Your task to perform on an android device: check battery use Image 0: 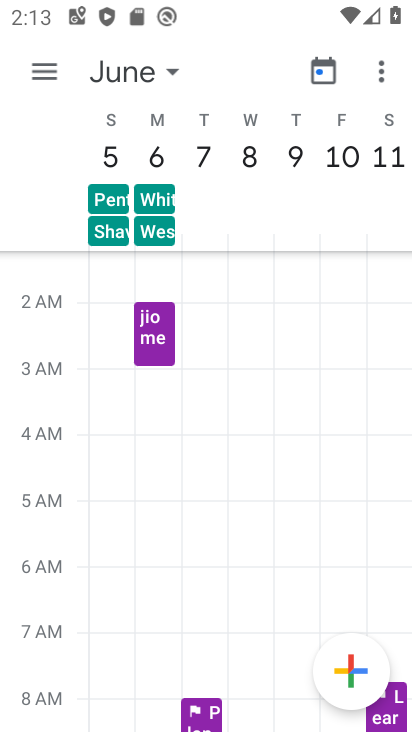
Step 0: press home button
Your task to perform on an android device: check battery use Image 1: 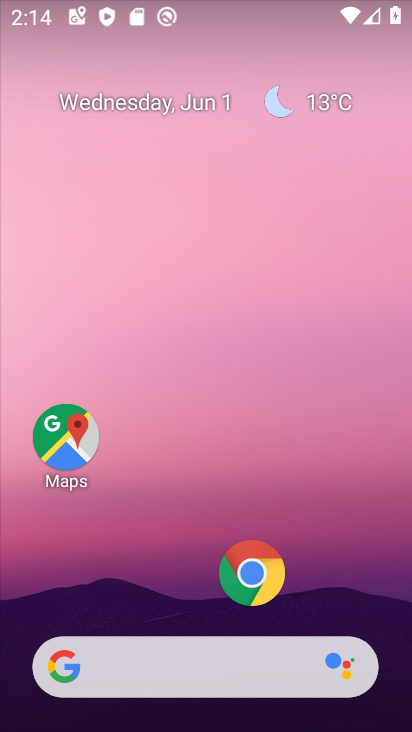
Step 1: drag from (182, 629) to (160, 27)
Your task to perform on an android device: check battery use Image 2: 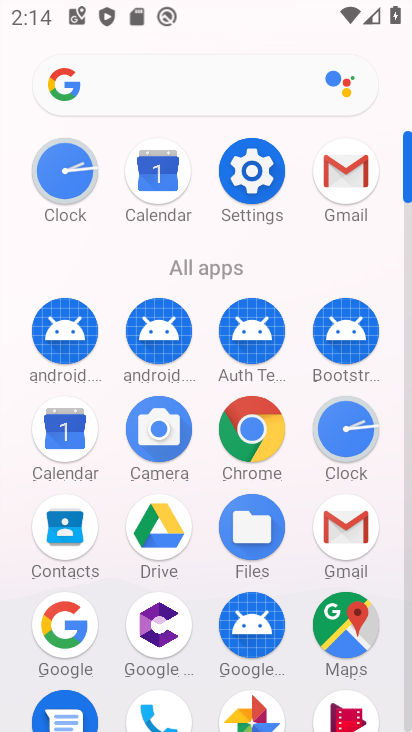
Step 2: click (261, 168)
Your task to perform on an android device: check battery use Image 3: 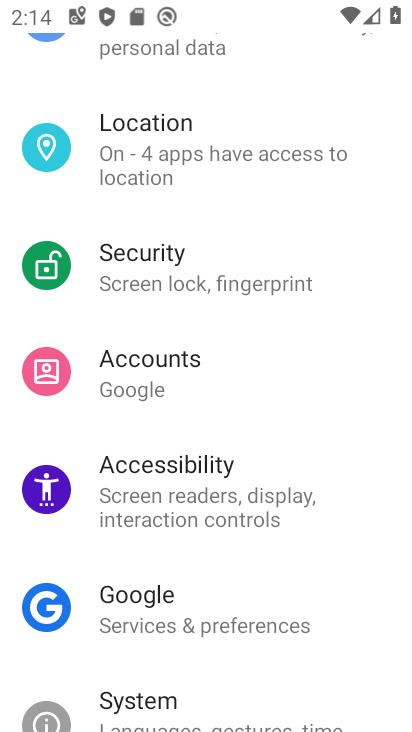
Step 3: drag from (195, 197) to (145, 565)
Your task to perform on an android device: check battery use Image 4: 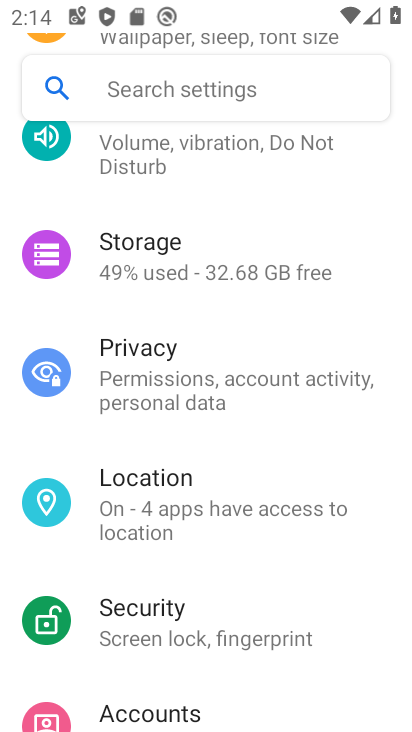
Step 4: drag from (167, 152) to (151, 537)
Your task to perform on an android device: check battery use Image 5: 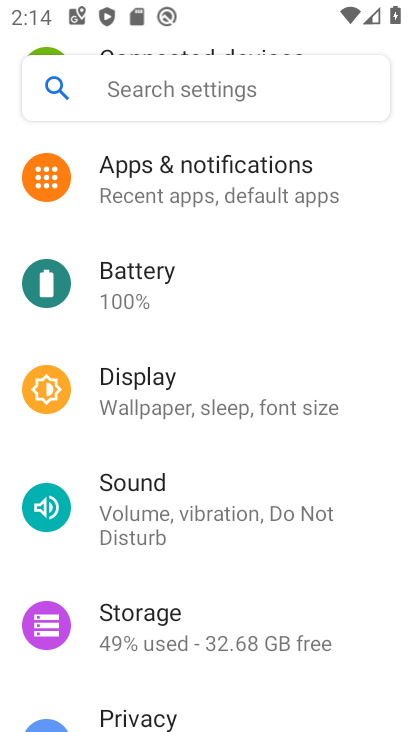
Step 5: click (138, 277)
Your task to perform on an android device: check battery use Image 6: 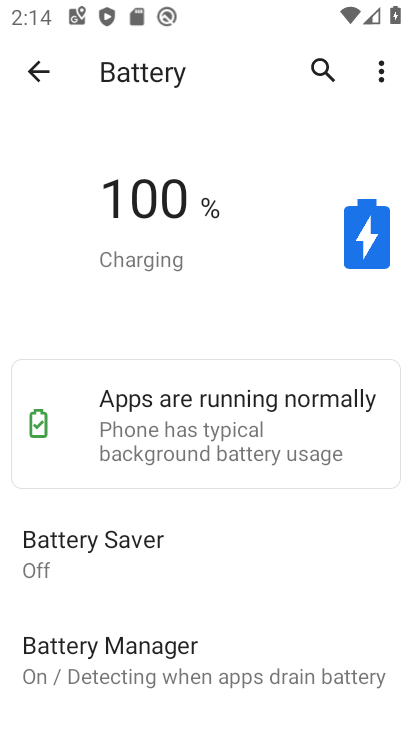
Step 6: click (382, 72)
Your task to perform on an android device: check battery use Image 7: 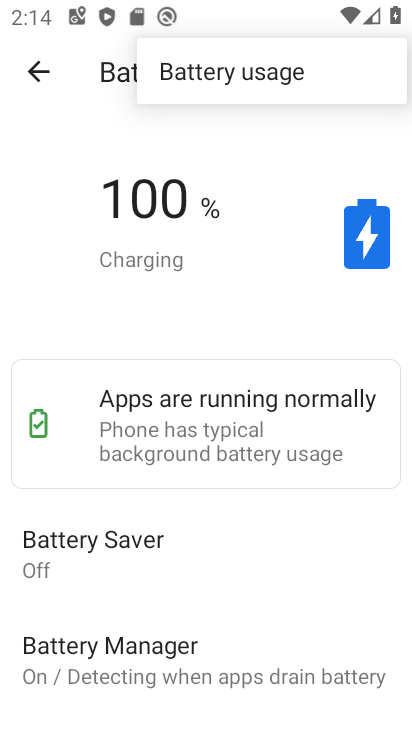
Step 7: click (258, 80)
Your task to perform on an android device: check battery use Image 8: 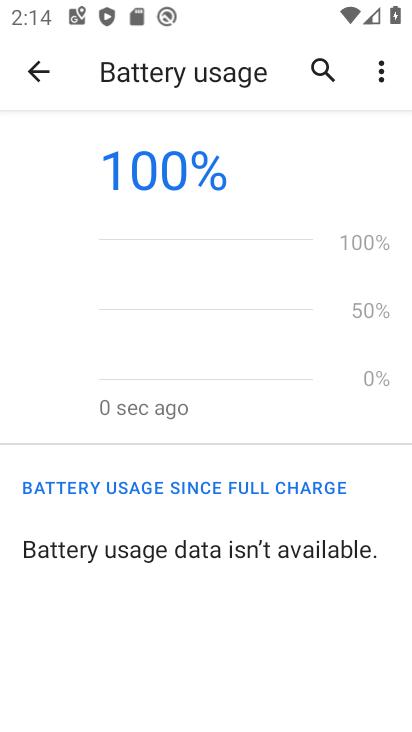
Step 8: task complete